Your task to perform on an android device: check android version Image 0: 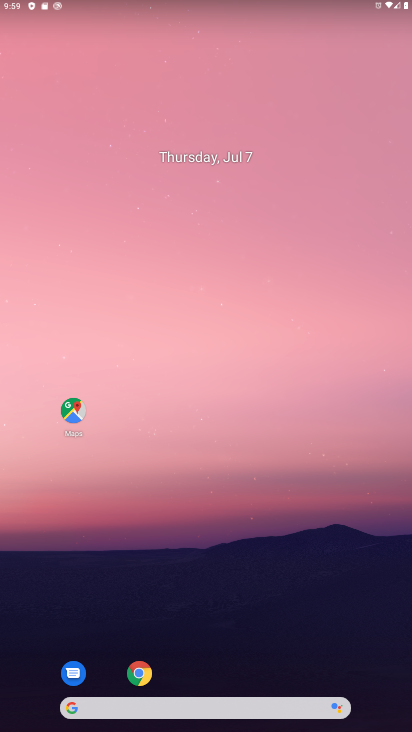
Step 0: drag from (190, 612) to (232, 16)
Your task to perform on an android device: check android version Image 1: 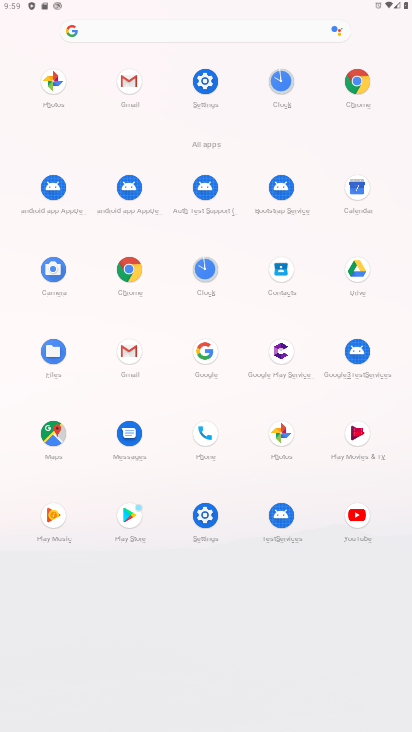
Step 1: click (201, 528)
Your task to perform on an android device: check android version Image 2: 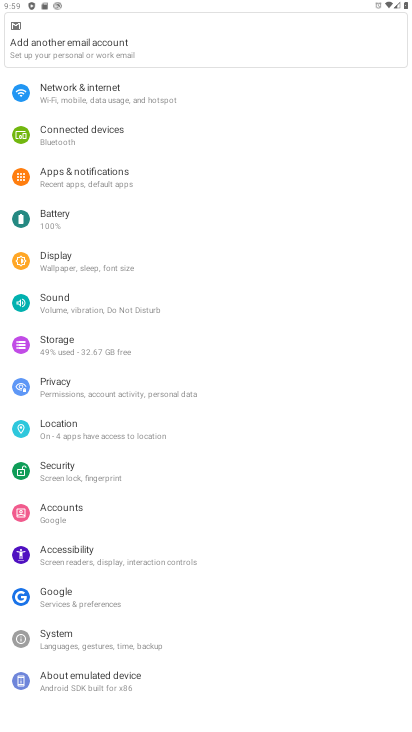
Step 2: click (97, 685)
Your task to perform on an android device: check android version Image 3: 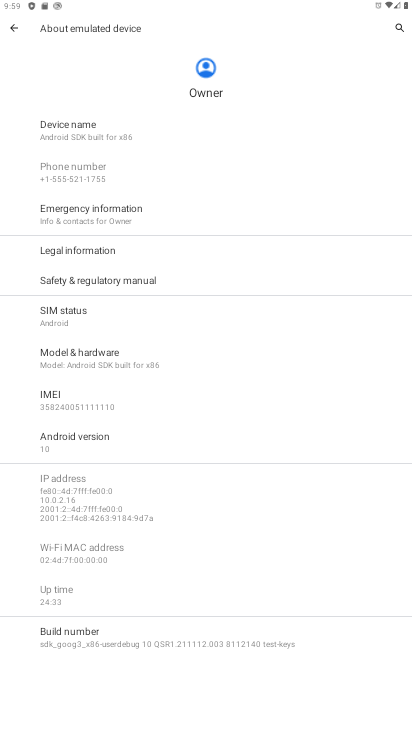
Step 3: click (98, 686)
Your task to perform on an android device: check android version Image 4: 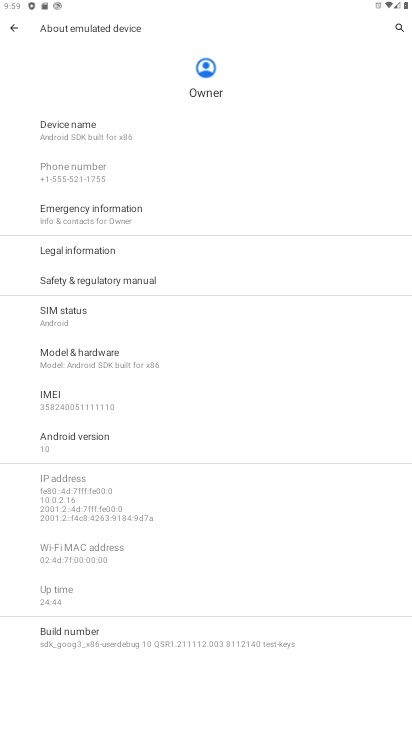
Step 4: click (92, 444)
Your task to perform on an android device: check android version Image 5: 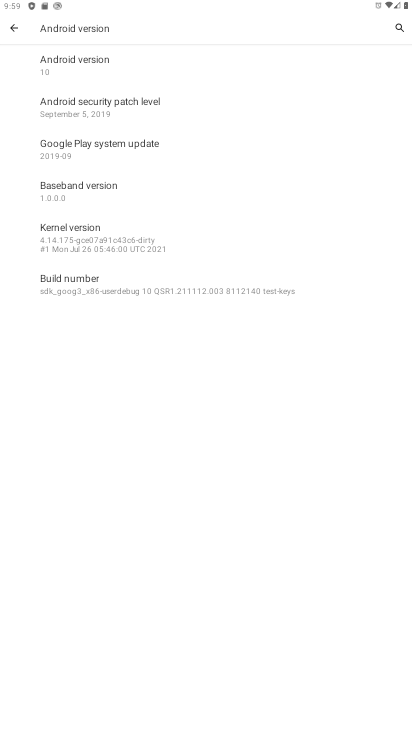
Step 5: click (97, 65)
Your task to perform on an android device: check android version Image 6: 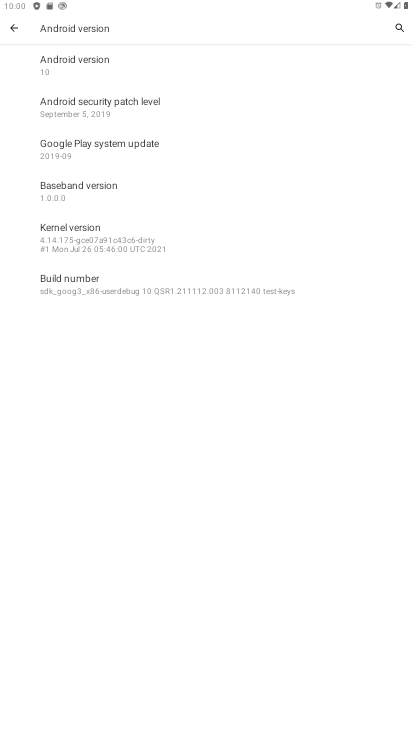
Step 6: task complete